Your task to perform on an android device: open sync settings in chrome Image 0: 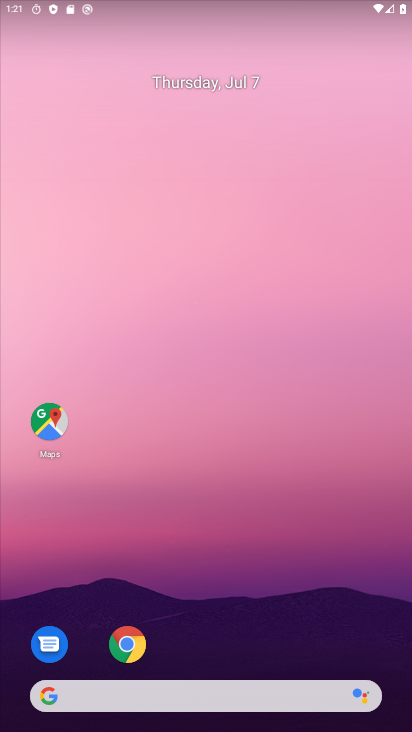
Step 0: click (132, 636)
Your task to perform on an android device: open sync settings in chrome Image 1: 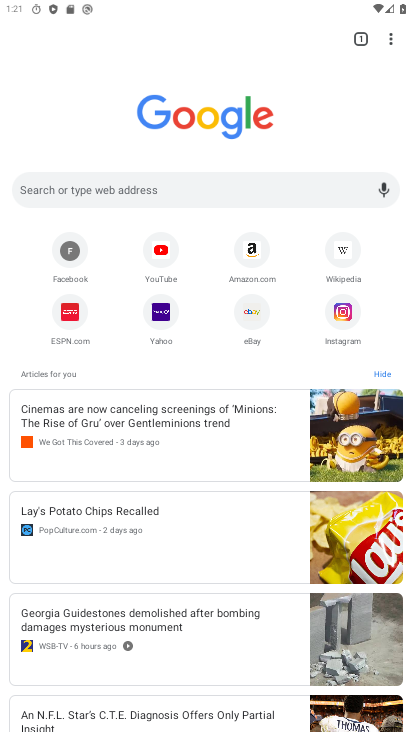
Step 1: click (392, 42)
Your task to perform on an android device: open sync settings in chrome Image 2: 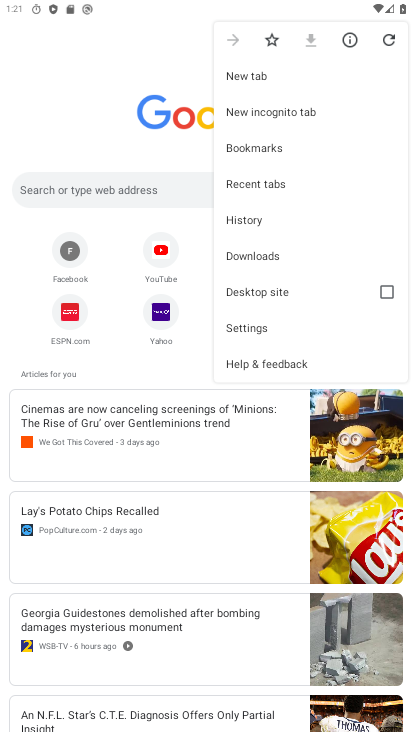
Step 2: click (244, 322)
Your task to perform on an android device: open sync settings in chrome Image 3: 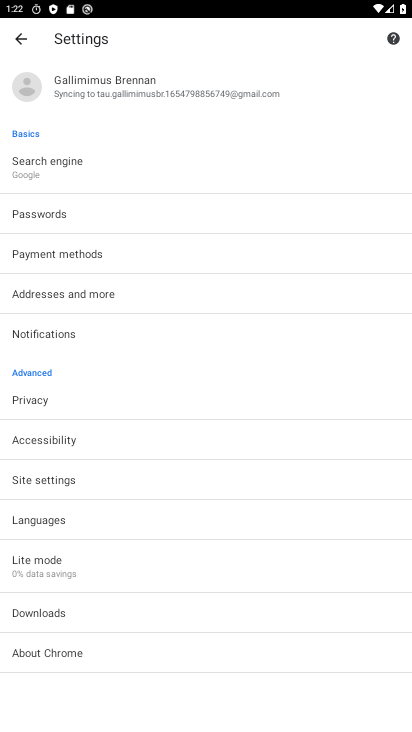
Step 3: click (44, 479)
Your task to perform on an android device: open sync settings in chrome Image 4: 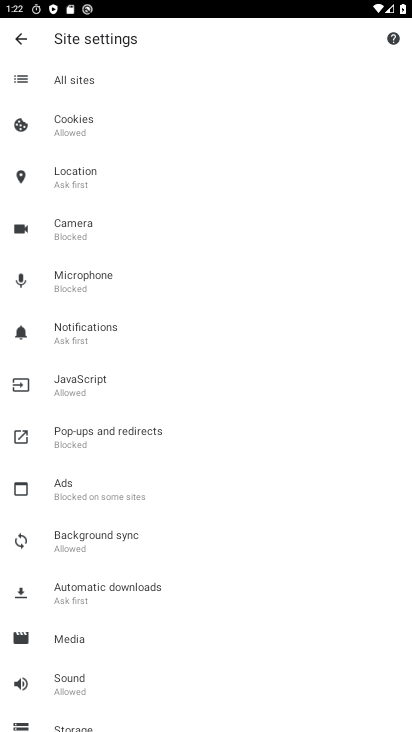
Step 4: click (78, 537)
Your task to perform on an android device: open sync settings in chrome Image 5: 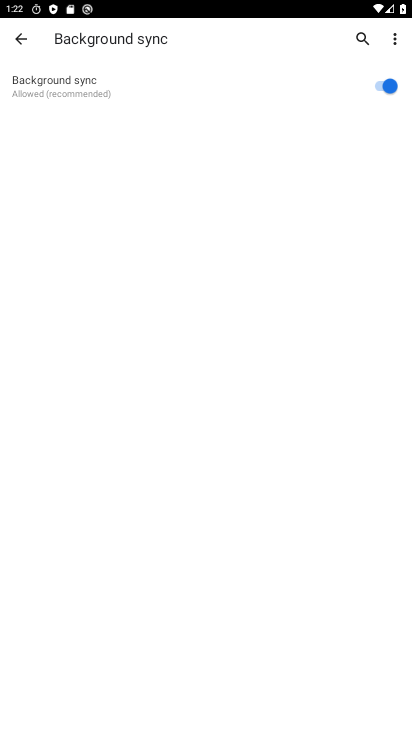
Step 5: task complete